Your task to perform on an android device: create a new album in the google photos Image 0: 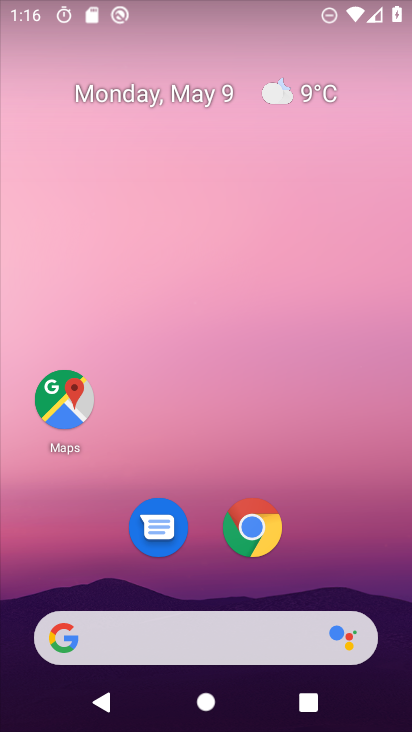
Step 0: drag from (199, 574) to (304, 17)
Your task to perform on an android device: create a new album in the google photos Image 1: 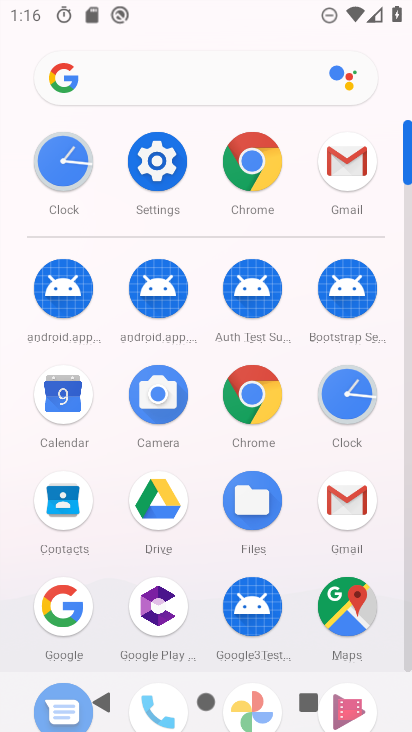
Step 1: drag from (221, 632) to (300, 247)
Your task to perform on an android device: create a new album in the google photos Image 2: 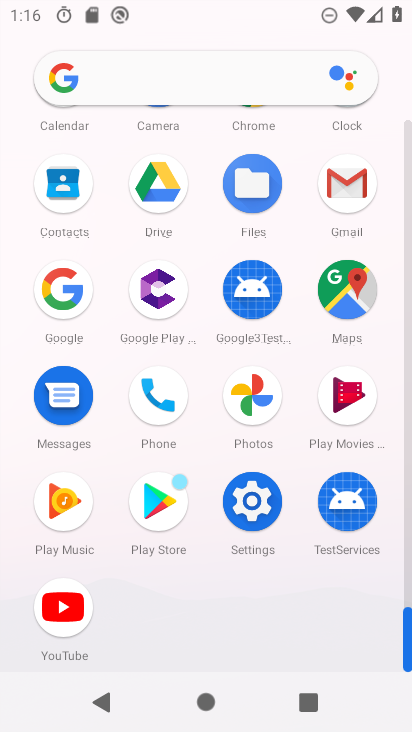
Step 2: click (252, 416)
Your task to perform on an android device: create a new album in the google photos Image 3: 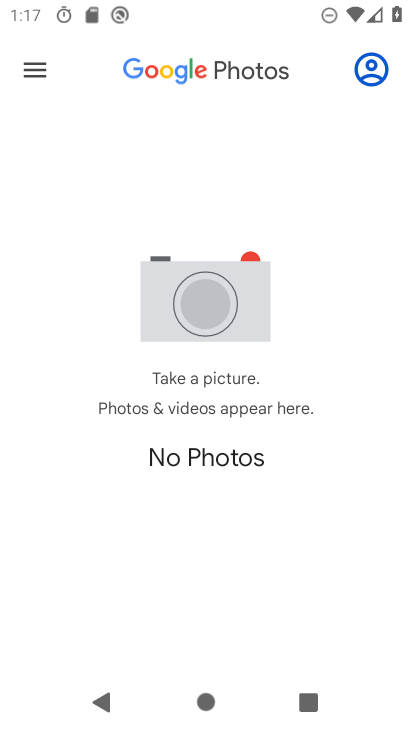
Step 3: click (30, 66)
Your task to perform on an android device: create a new album in the google photos Image 4: 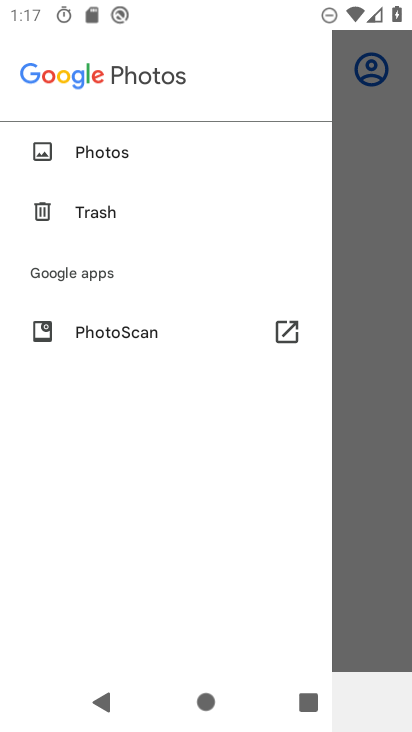
Step 4: click (112, 153)
Your task to perform on an android device: create a new album in the google photos Image 5: 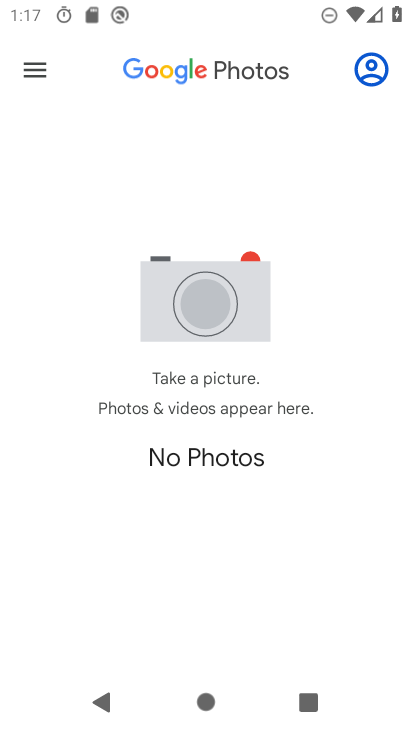
Step 5: task complete